Your task to perform on an android device: Show me the alarms in the clock app Image 0: 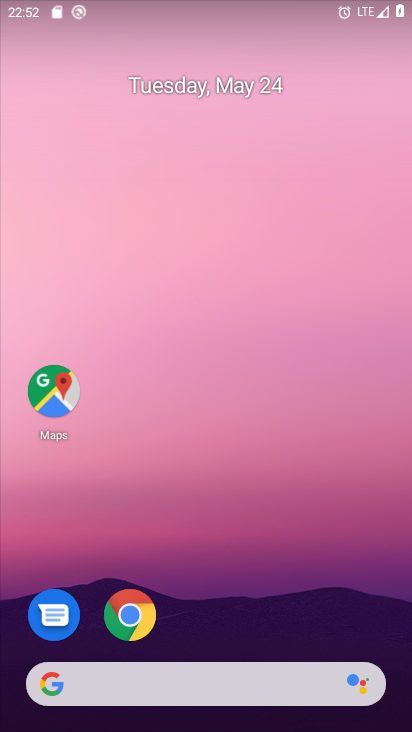
Step 0: drag from (298, 490) to (296, 164)
Your task to perform on an android device: Show me the alarms in the clock app Image 1: 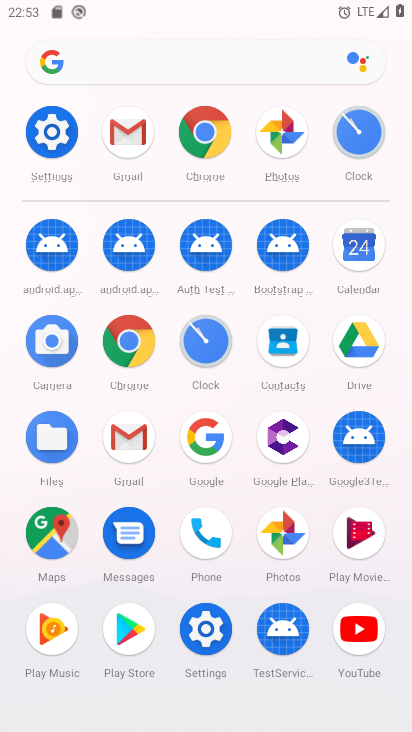
Step 1: click (193, 337)
Your task to perform on an android device: Show me the alarms in the clock app Image 2: 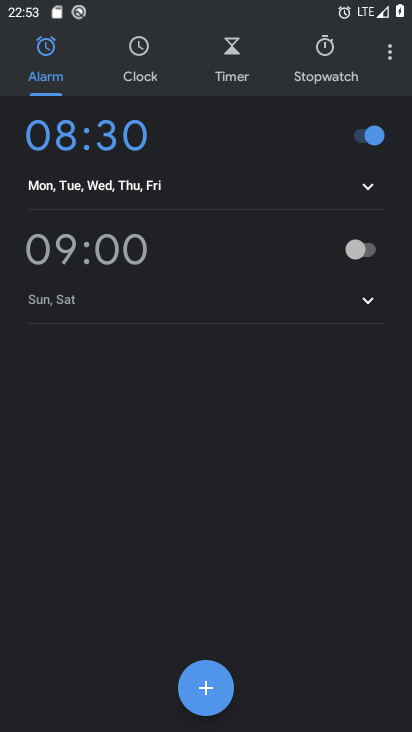
Step 2: task complete